Your task to perform on an android device: Search for pizza restaurants on Maps Image 0: 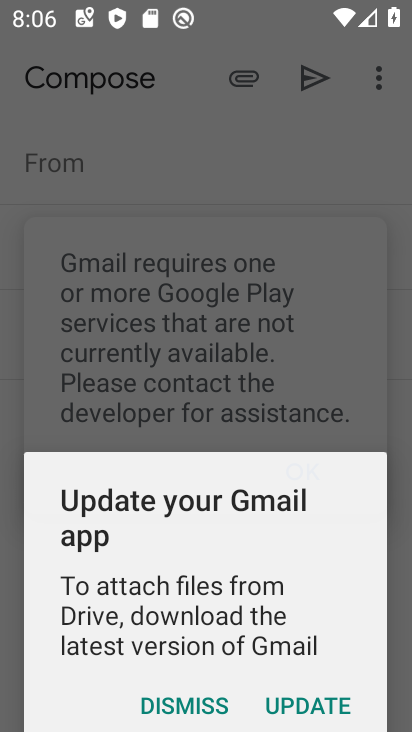
Step 0: click (288, 457)
Your task to perform on an android device: Search for pizza restaurants on Maps Image 1: 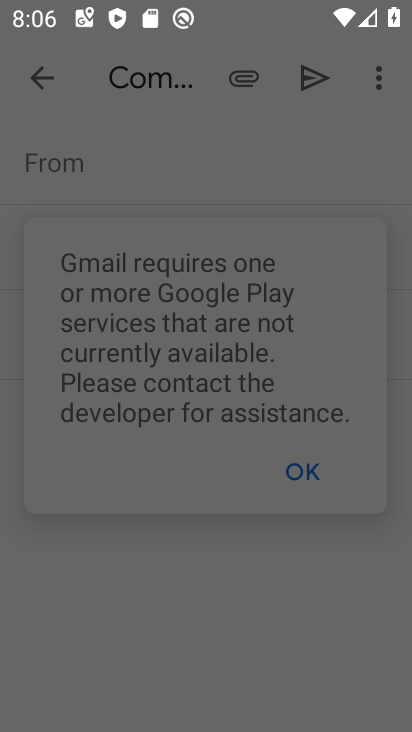
Step 1: press home button
Your task to perform on an android device: Search for pizza restaurants on Maps Image 2: 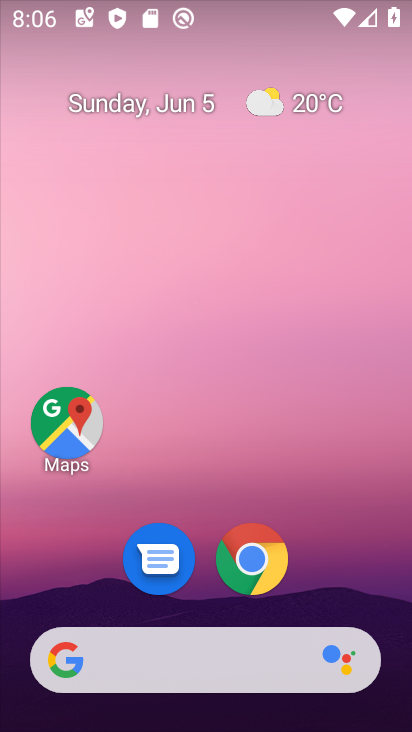
Step 2: click (86, 396)
Your task to perform on an android device: Search for pizza restaurants on Maps Image 3: 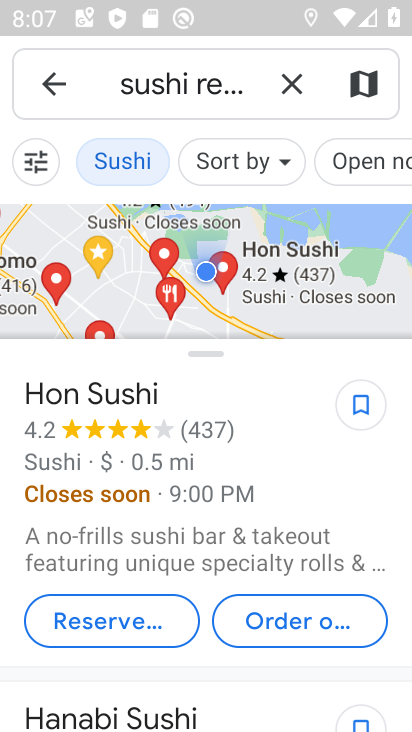
Step 3: click (288, 89)
Your task to perform on an android device: Search for pizza restaurants on Maps Image 4: 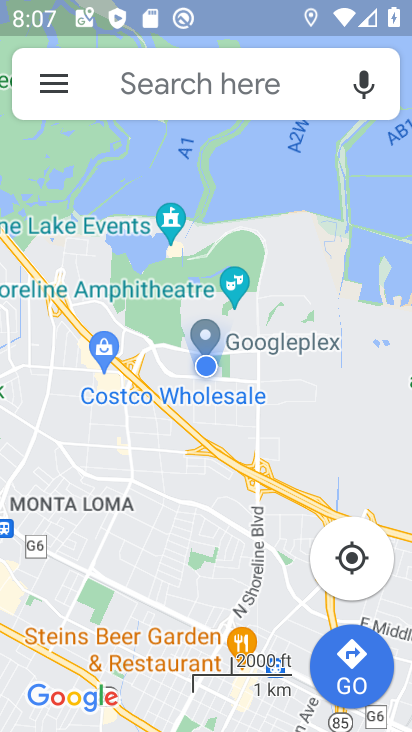
Step 4: click (177, 70)
Your task to perform on an android device: Search for pizza restaurants on Maps Image 5: 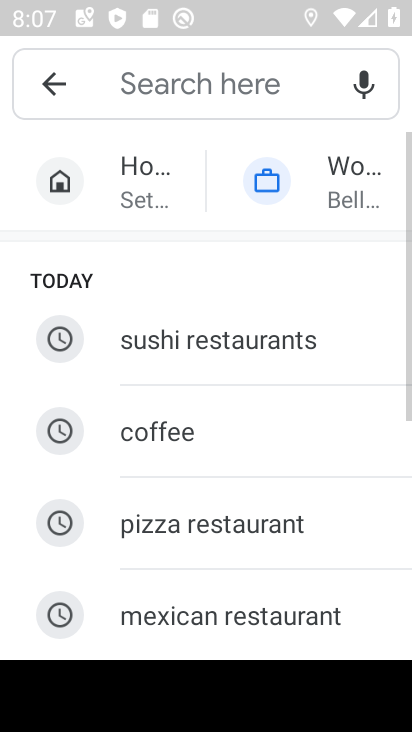
Step 5: click (191, 522)
Your task to perform on an android device: Search for pizza restaurants on Maps Image 6: 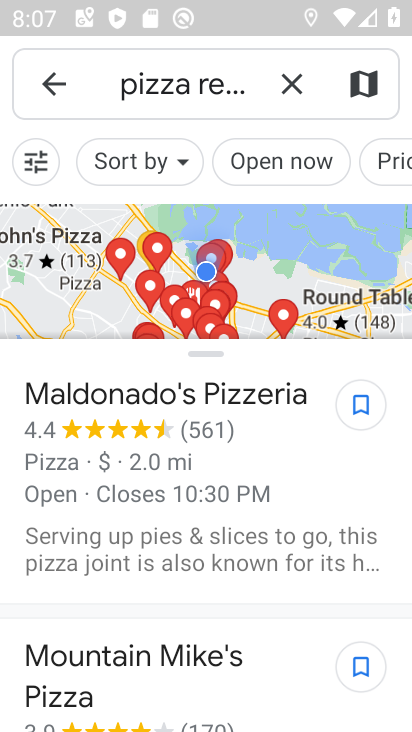
Step 6: task complete